Your task to perform on an android device: turn off airplane mode Image 0: 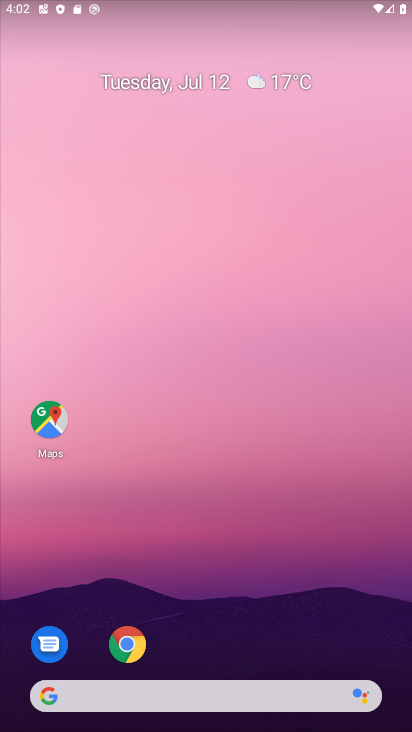
Step 0: drag from (247, 649) to (280, 7)
Your task to perform on an android device: turn off airplane mode Image 1: 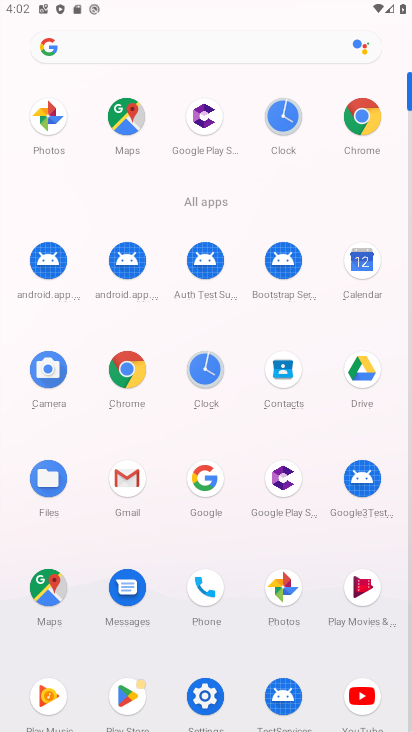
Step 1: click (215, 698)
Your task to perform on an android device: turn off airplane mode Image 2: 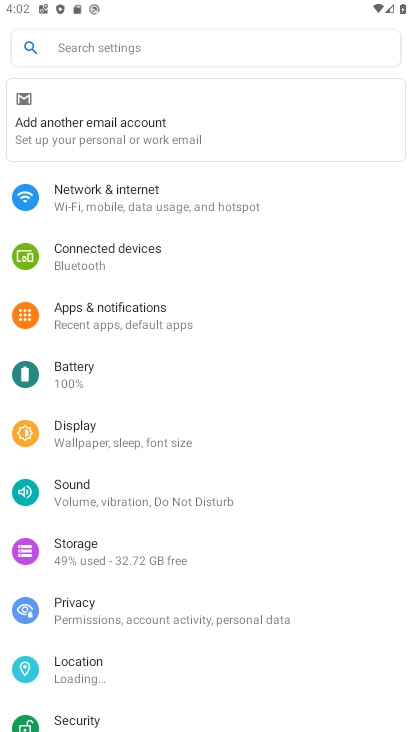
Step 2: click (213, 211)
Your task to perform on an android device: turn off airplane mode Image 3: 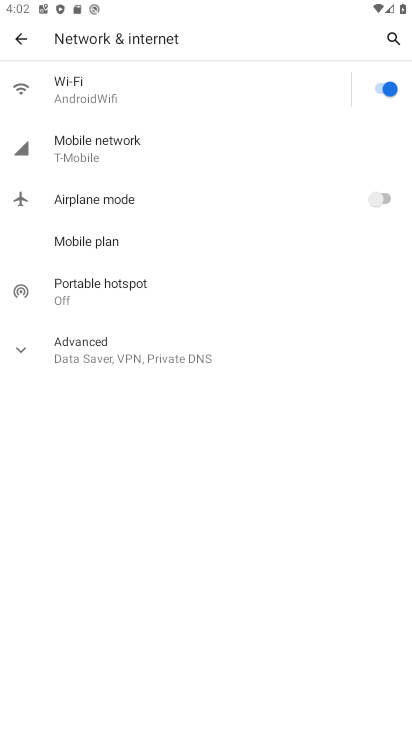
Step 3: task complete